Your task to perform on an android device: change the upload size in google photos Image 0: 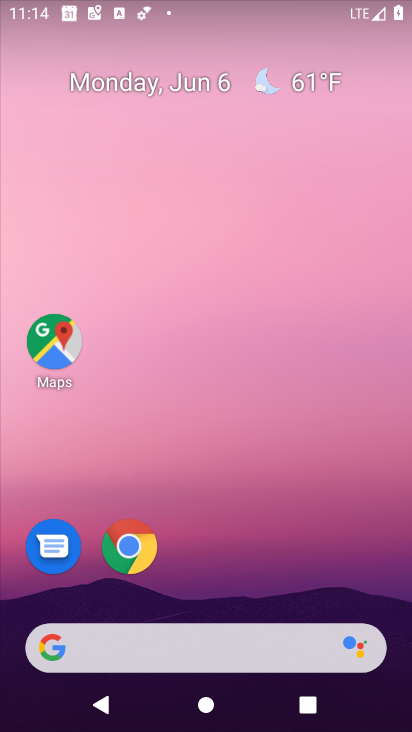
Step 0: drag from (402, 623) to (310, 59)
Your task to perform on an android device: change the upload size in google photos Image 1: 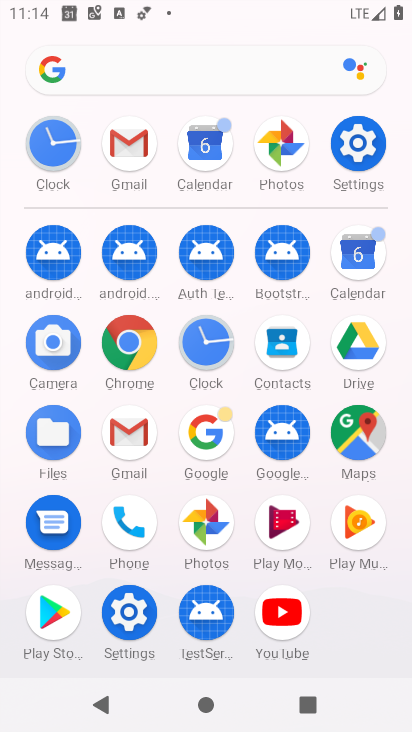
Step 1: click (206, 522)
Your task to perform on an android device: change the upload size in google photos Image 2: 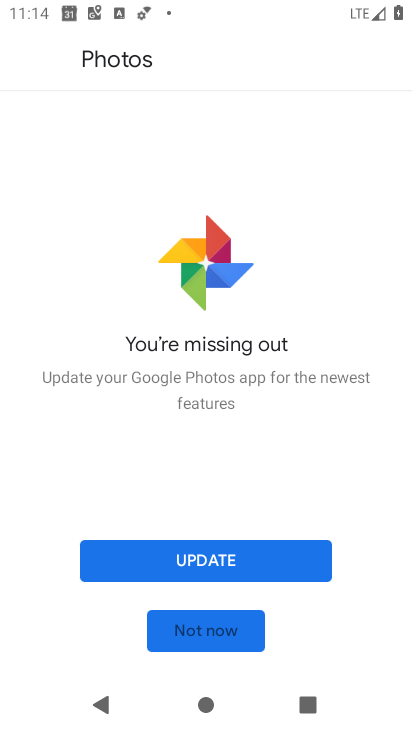
Step 2: click (200, 568)
Your task to perform on an android device: change the upload size in google photos Image 3: 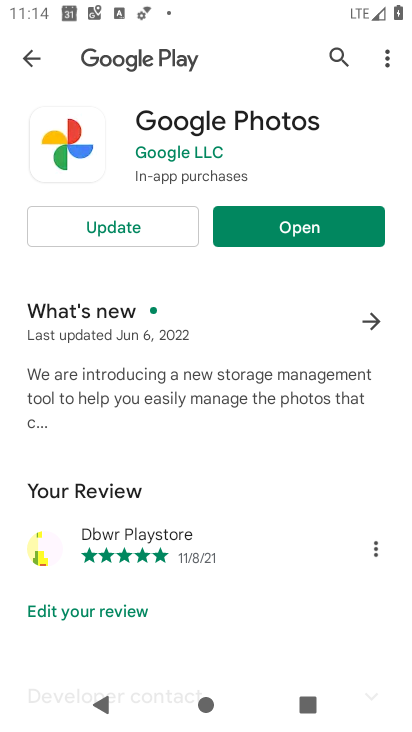
Step 3: click (121, 221)
Your task to perform on an android device: change the upload size in google photos Image 4: 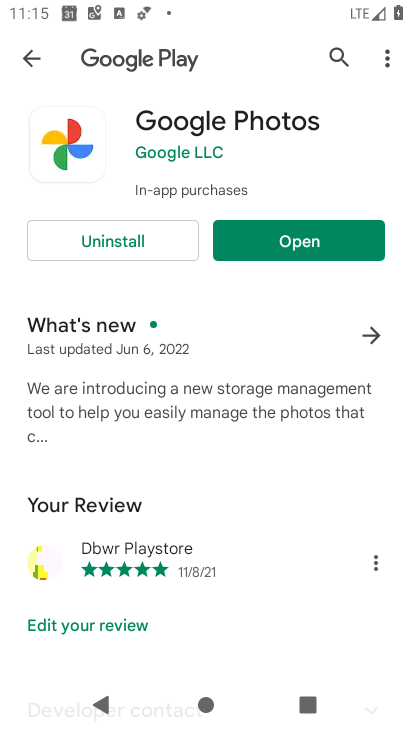
Step 4: click (298, 238)
Your task to perform on an android device: change the upload size in google photos Image 5: 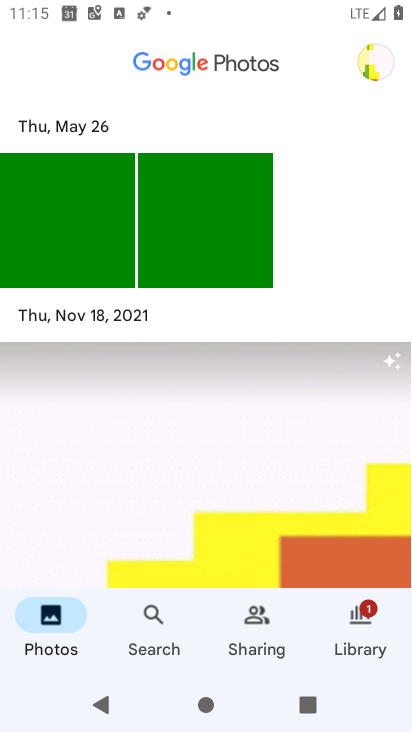
Step 5: click (373, 64)
Your task to perform on an android device: change the upload size in google photos Image 6: 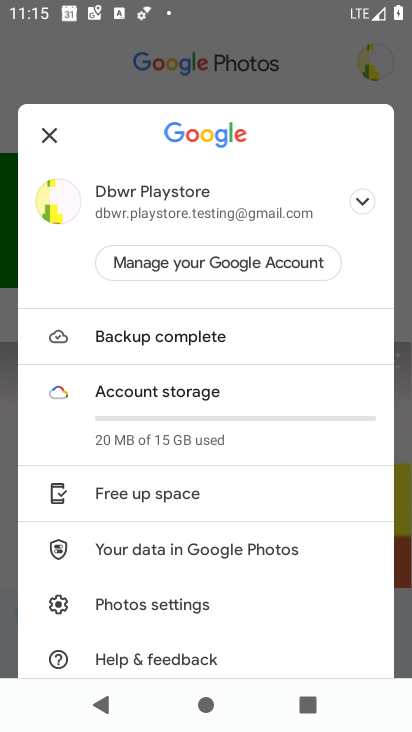
Step 6: drag from (257, 604) to (242, 372)
Your task to perform on an android device: change the upload size in google photos Image 7: 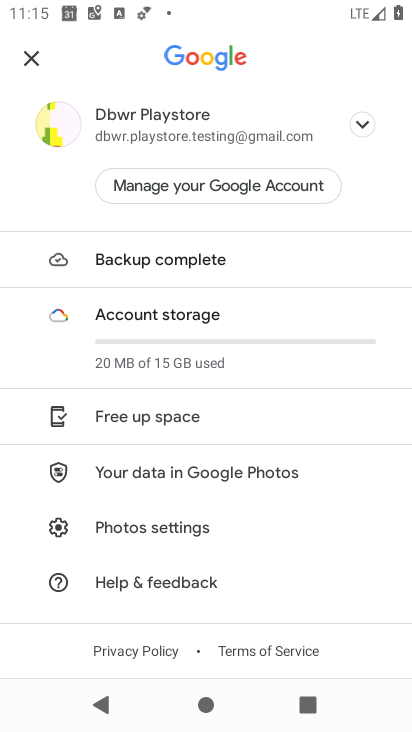
Step 7: click (152, 529)
Your task to perform on an android device: change the upload size in google photos Image 8: 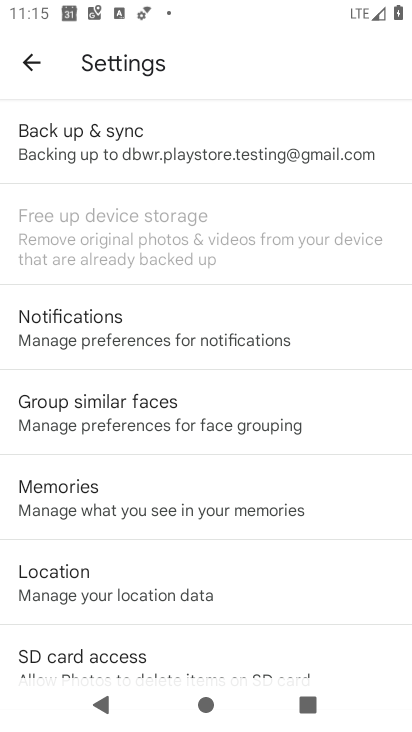
Step 8: click (107, 134)
Your task to perform on an android device: change the upload size in google photos Image 9: 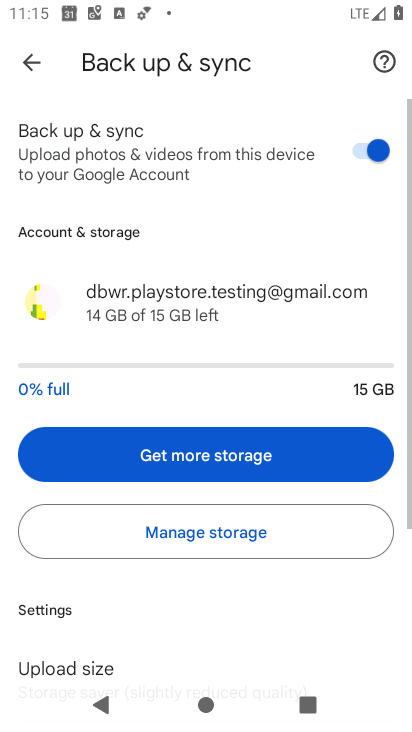
Step 9: drag from (311, 627) to (291, 209)
Your task to perform on an android device: change the upload size in google photos Image 10: 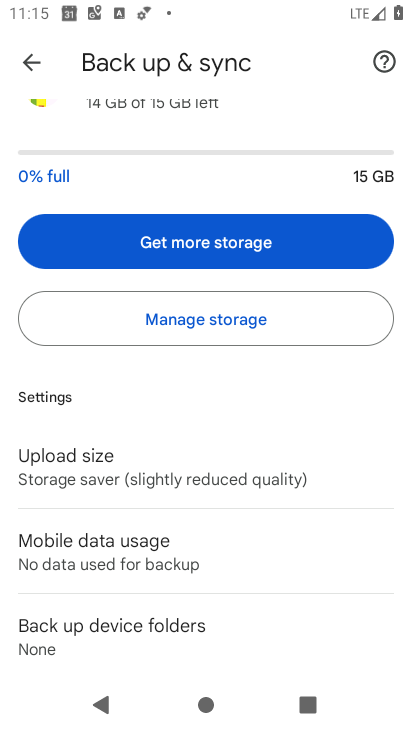
Step 10: click (74, 487)
Your task to perform on an android device: change the upload size in google photos Image 11: 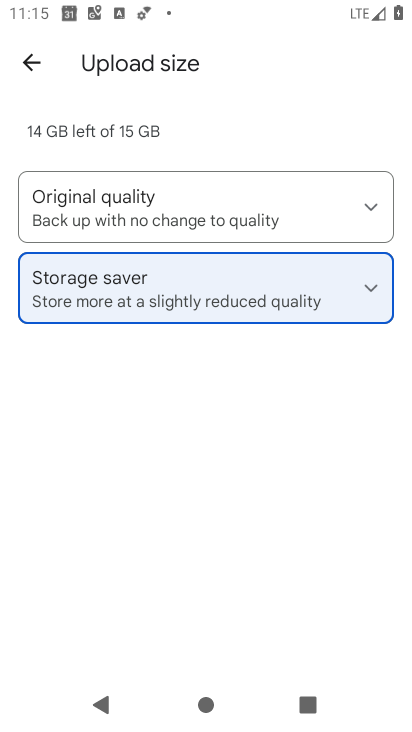
Step 11: click (334, 204)
Your task to perform on an android device: change the upload size in google photos Image 12: 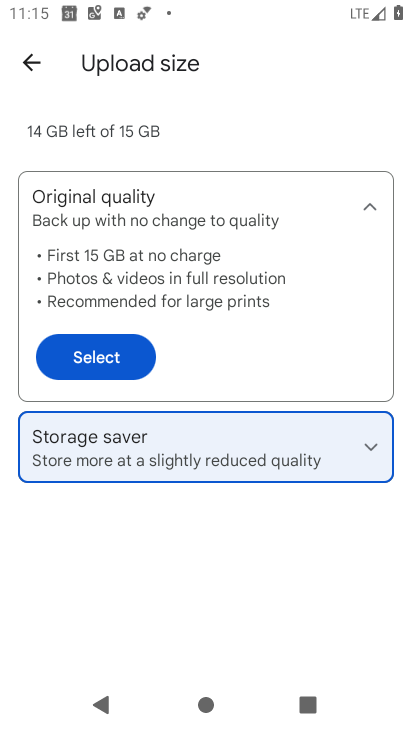
Step 12: click (102, 359)
Your task to perform on an android device: change the upload size in google photos Image 13: 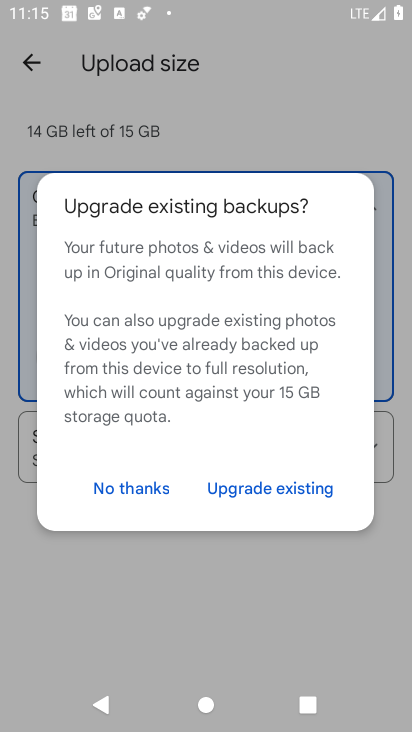
Step 13: click (132, 494)
Your task to perform on an android device: change the upload size in google photos Image 14: 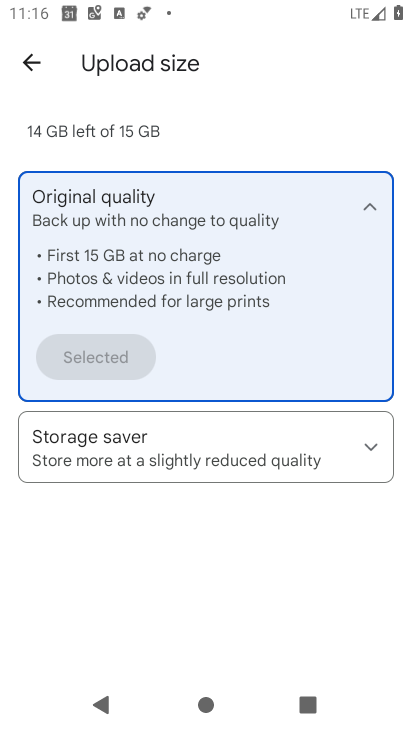
Step 14: task complete